Your task to perform on an android device: Open display settings Image 0: 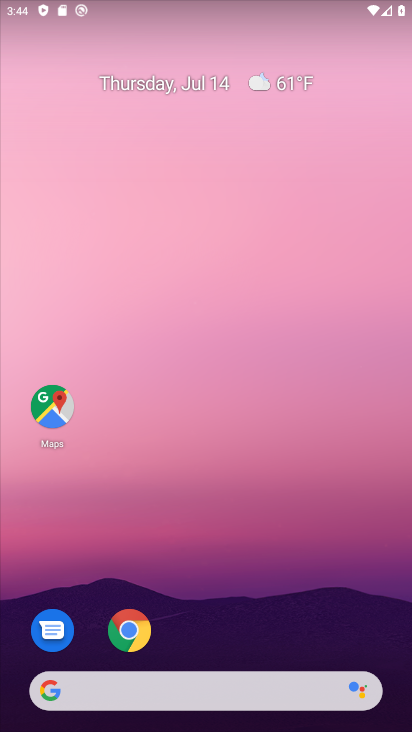
Step 0: drag from (257, 631) to (209, 179)
Your task to perform on an android device: Open display settings Image 1: 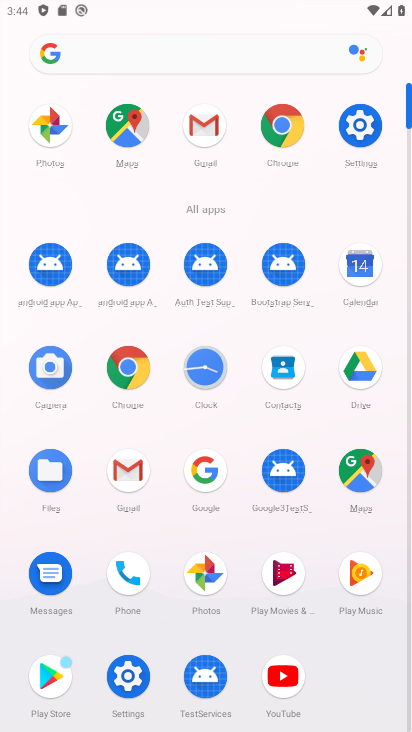
Step 1: click (369, 129)
Your task to perform on an android device: Open display settings Image 2: 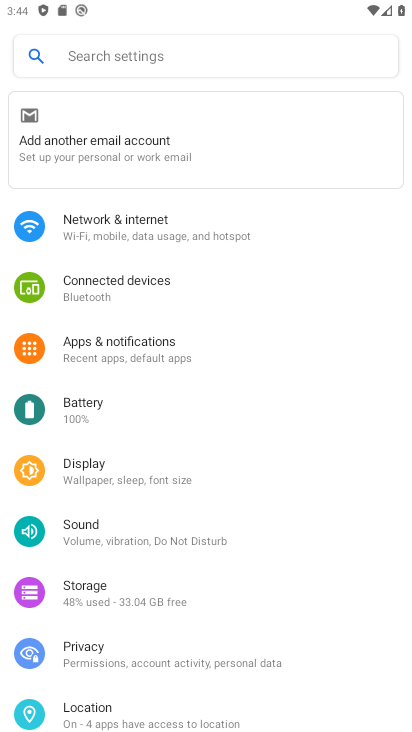
Step 2: click (145, 474)
Your task to perform on an android device: Open display settings Image 3: 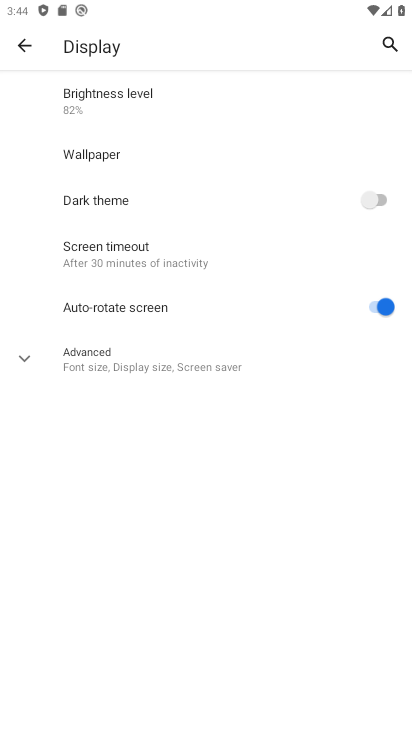
Step 3: task complete